Your task to perform on an android device: check out phone information Image 0: 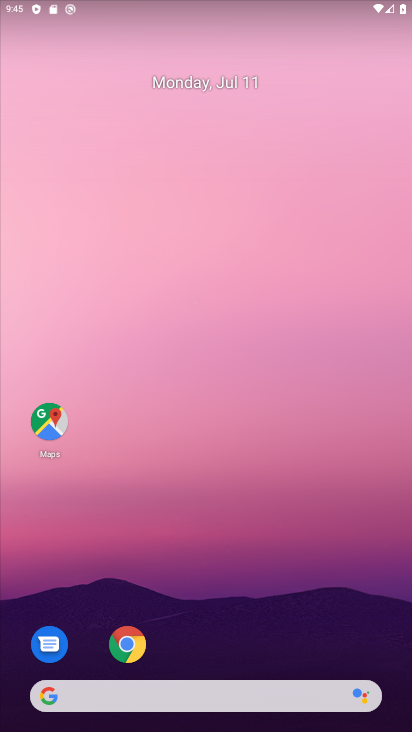
Step 0: drag from (280, 643) to (277, 61)
Your task to perform on an android device: check out phone information Image 1: 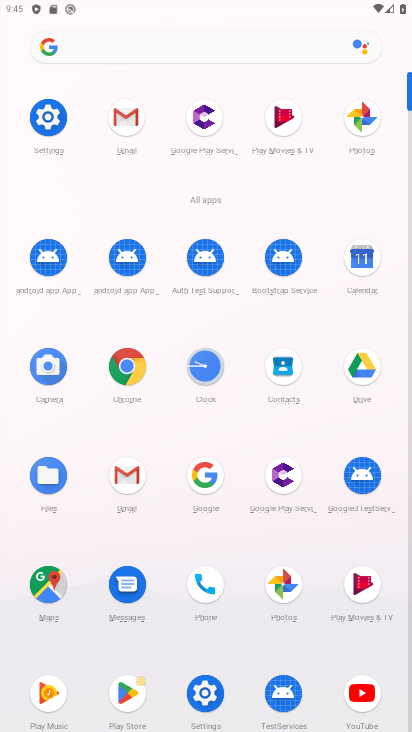
Step 1: click (58, 122)
Your task to perform on an android device: check out phone information Image 2: 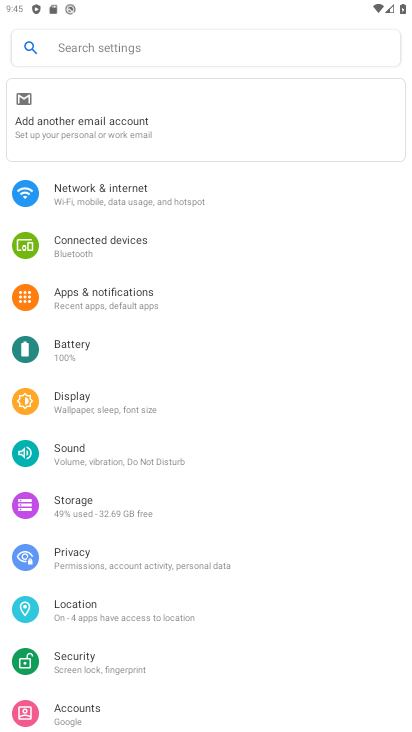
Step 2: drag from (102, 656) to (95, 281)
Your task to perform on an android device: check out phone information Image 3: 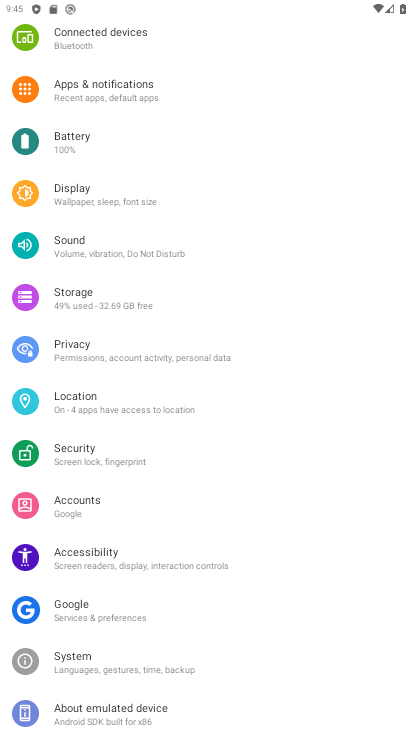
Step 3: click (124, 706)
Your task to perform on an android device: check out phone information Image 4: 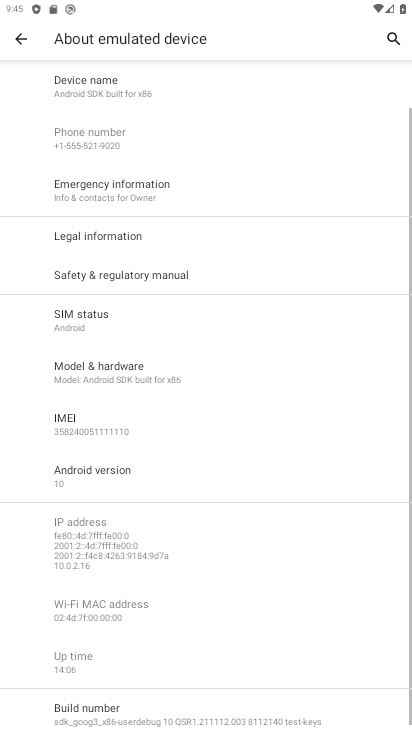
Step 4: task complete